Your task to perform on an android device: allow cookies in the chrome app Image 0: 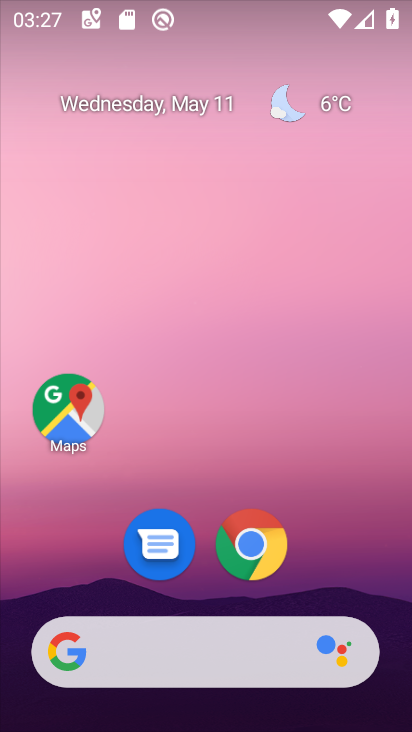
Step 0: click (231, 538)
Your task to perform on an android device: allow cookies in the chrome app Image 1: 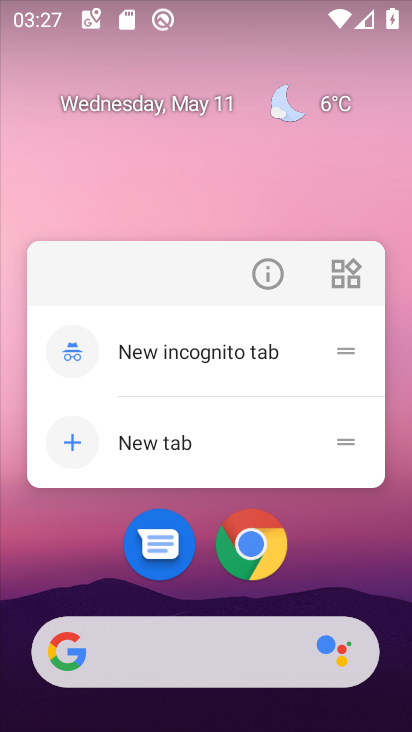
Step 1: click (240, 545)
Your task to perform on an android device: allow cookies in the chrome app Image 2: 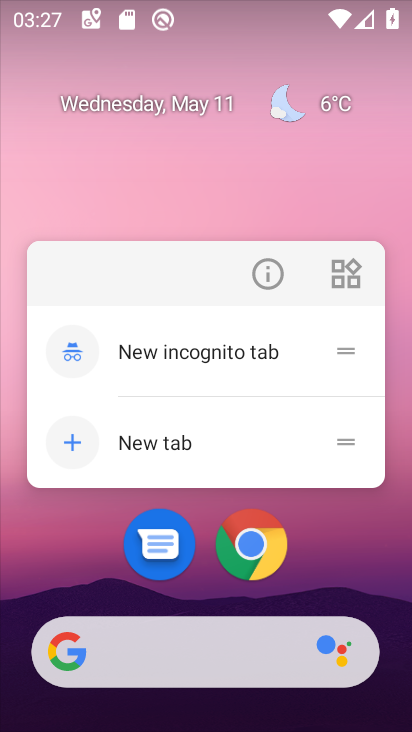
Step 2: click (243, 543)
Your task to perform on an android device: allow cookies in the chrome app Image 3: 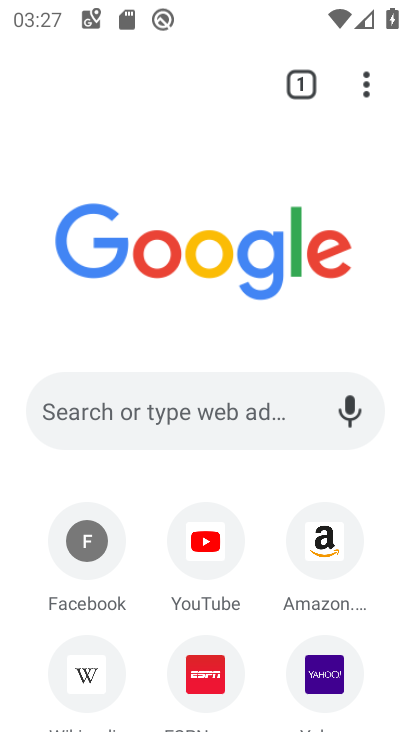
Step 3: click (373, 82)
Your task to perform on an android device: allow cookies in the chrome app Image 4: 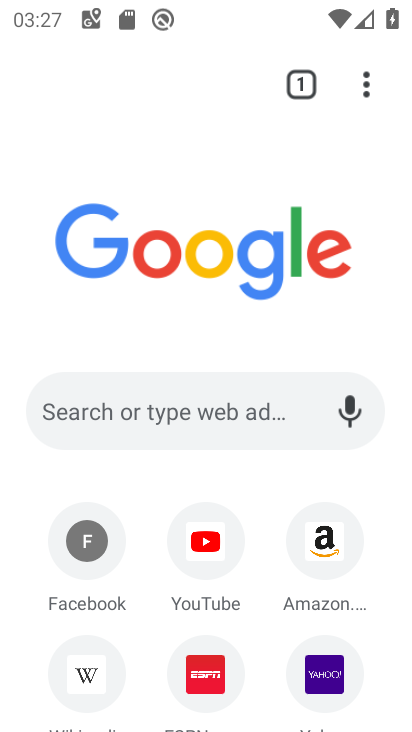
Step 4: click (369, 80)
Your task to perform on an android device: allow cookies in the chrome app Image 5: 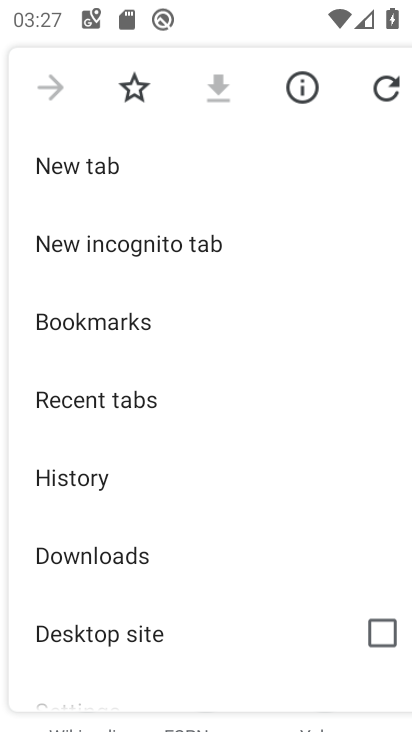
Step 5: drag from (130, 659) to (115, 308)
Your task to perform on an android device: allow cookies in the chrome app Image 6: 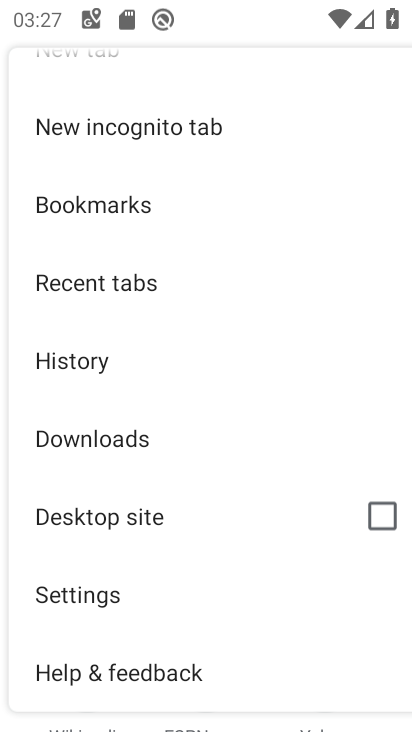
Step 6: click (58, 594)
Your task to perform on an android device: allow cookies in the chrome app Image 7: 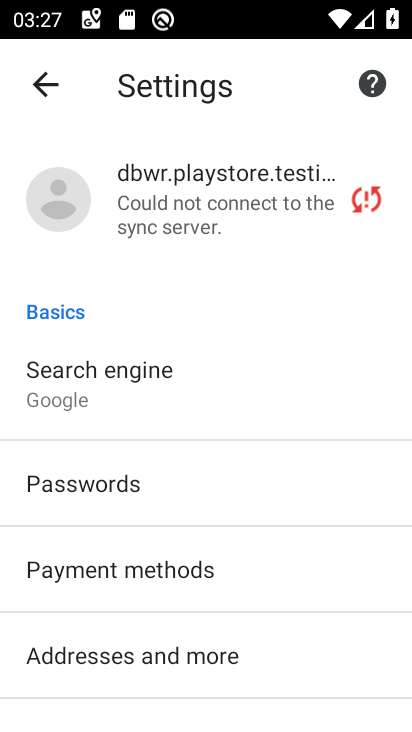
Step 7: drag from (188, 609) to (254, 365)
Your task to perform on an android device: allow cookies in the chrome app Image 8: 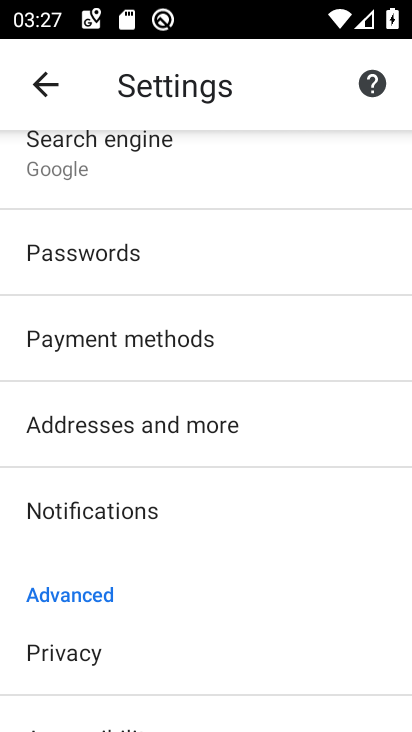
Step 8: drag from (161, 634) to (160, 276)
Your task to perform on an android device: allow cookies in the chrome app Image 9: 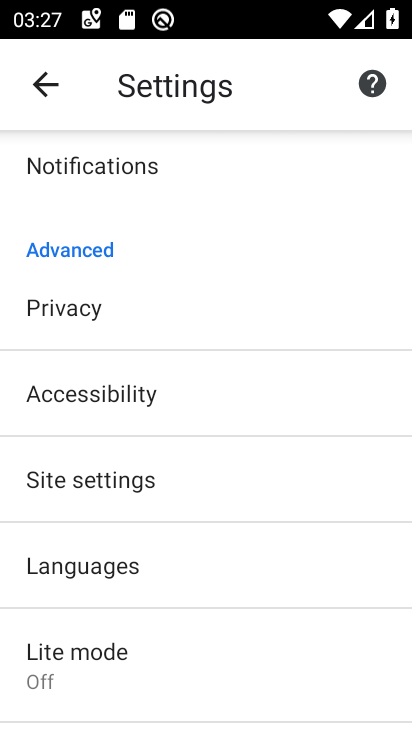
Step 9: click (150, 488)
Your task to perform on an android device: allow cookies in the chrome app Image 10: 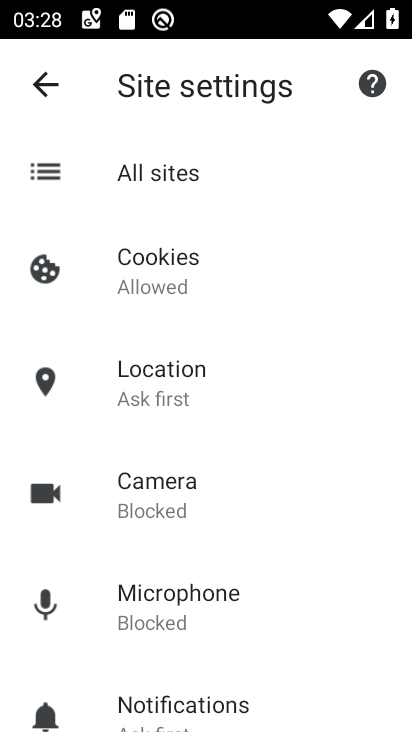
Step 10: click (175, 259)
Your task to perform on an android device: allow cookies in the chrome app Image 11: 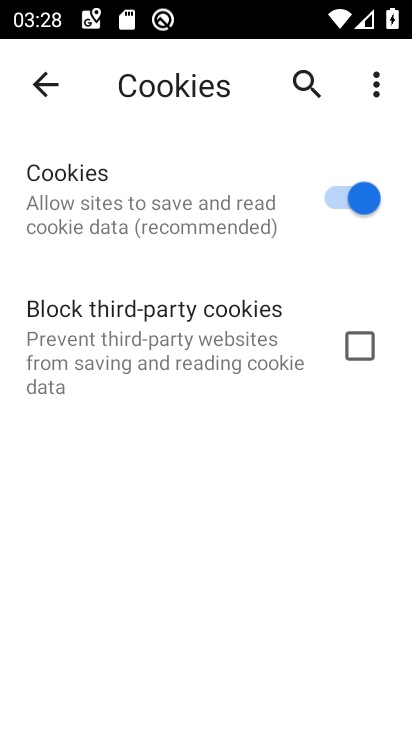
Step 11: task complete